Your task to perform on an android device: find snoozed emails in the gmail app Image 0: 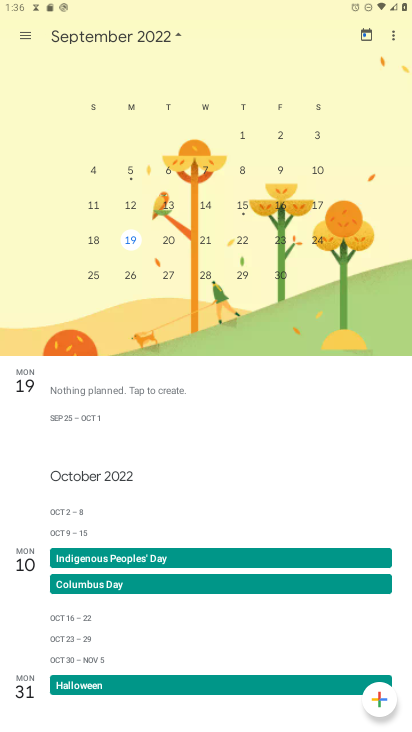
Step 0: press home button
Your task to perform on an android device: find snoozed emails in the gmail app Image 1: 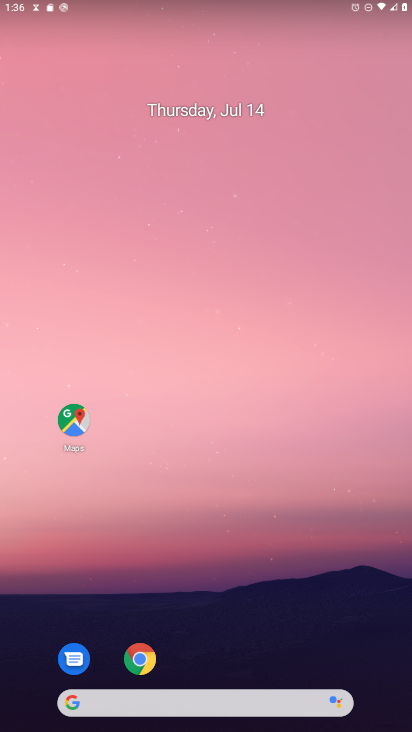
Step 1: drag from (28, 688) to (227, 252)
Your task to perform on an android device: find snoozed emails in the gmail app Image 2: 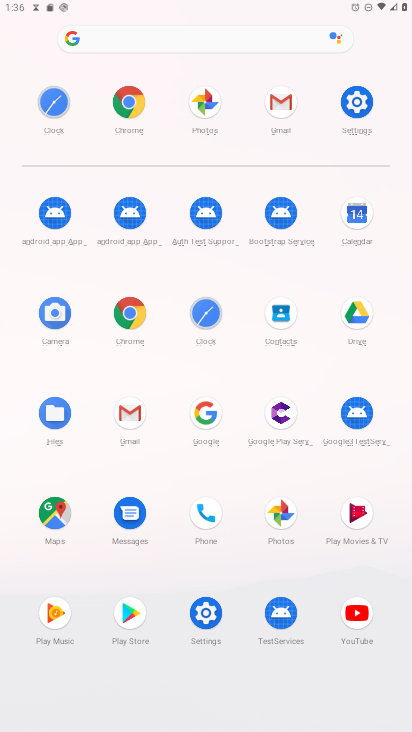
Step 2: click (127, 420)
Your task to perform on an android device: find snoozed emails in the gmail app Image 3: 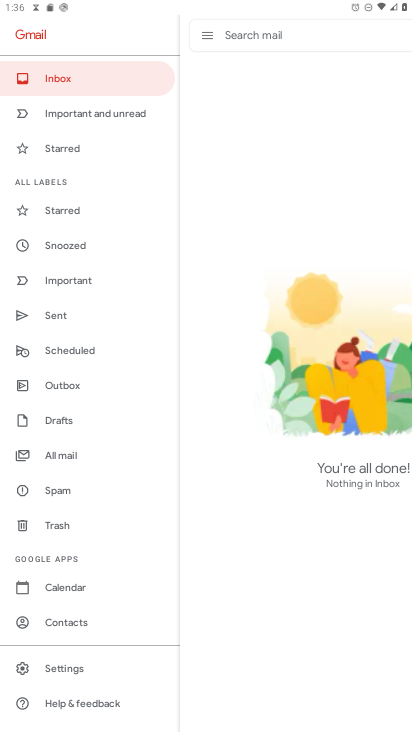
Step 3: click (69, 233)
Your task to perform on an android device: find snoozed emails in the gmail app Image 4: 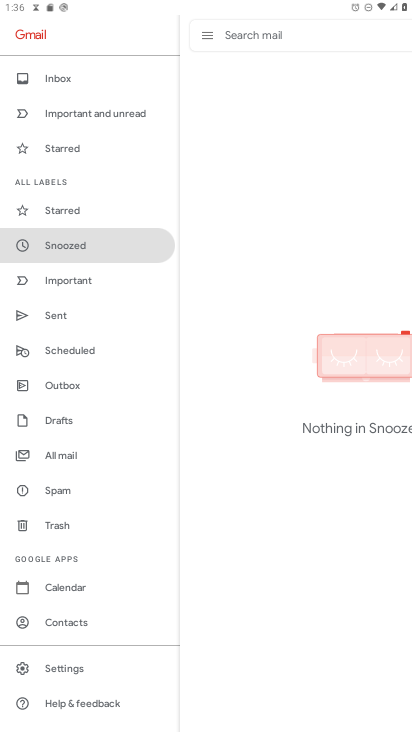
Step 4: task complete